Your task to perform on an android device: Check the news Image 0: 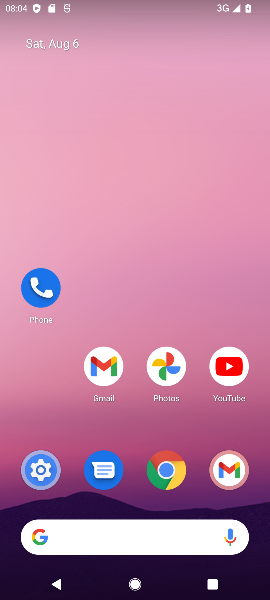
Step 0: press home button
Your task to perform on an android device: Check the news Image 1: 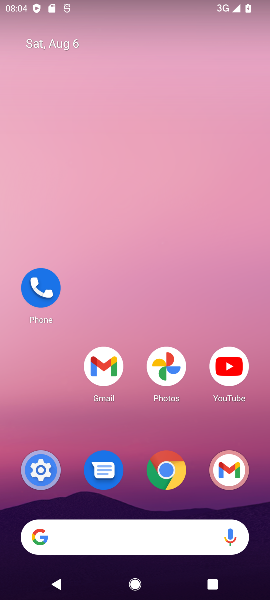
Step 1: drag from (173, 453) to (62, 72)
Your task to perform on an android device: Check the news Image 2: 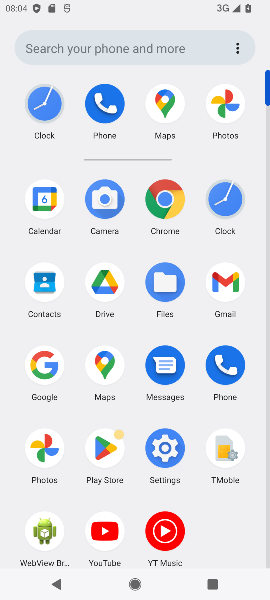
Step 2: click (163, 211)
Your task to perform on an android device: Check the news Image 3: 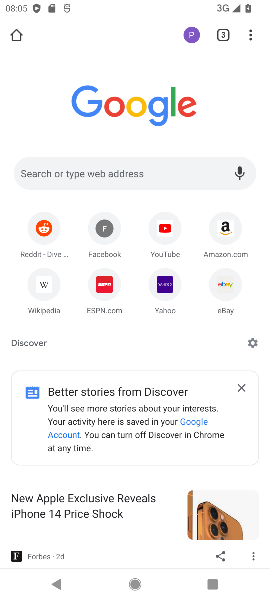
Step 3: click (149, 171)
Your task to perform on an android device: Check the news Image 4: 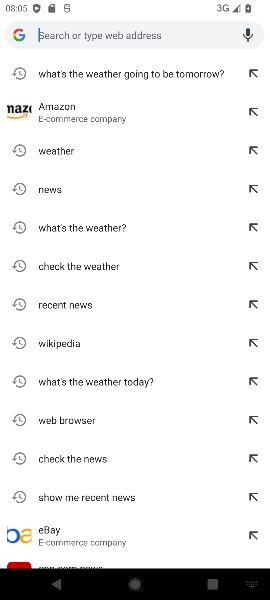
Step 4: type "Check the news"
Your task to perform on an android device: Check the news Image 5: 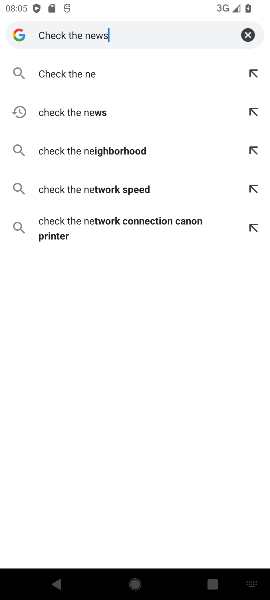
Step 5: type ""
Your task to perform on an android device: Check the news Image 6: 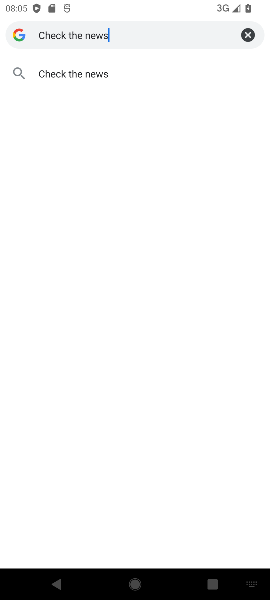
Step 6: click (103, 76)
Your task to perform on an android device: Check the news Image 7: 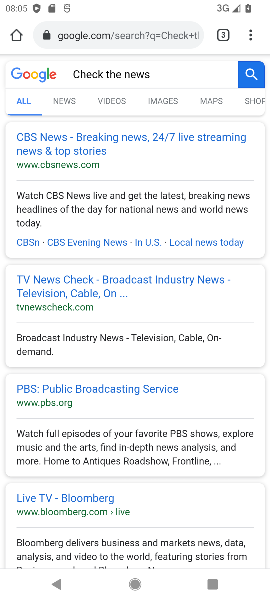
Step 7: task complete